Your task to perform on an android device: Open Google Chrome and open the bookmarks view Image 0: 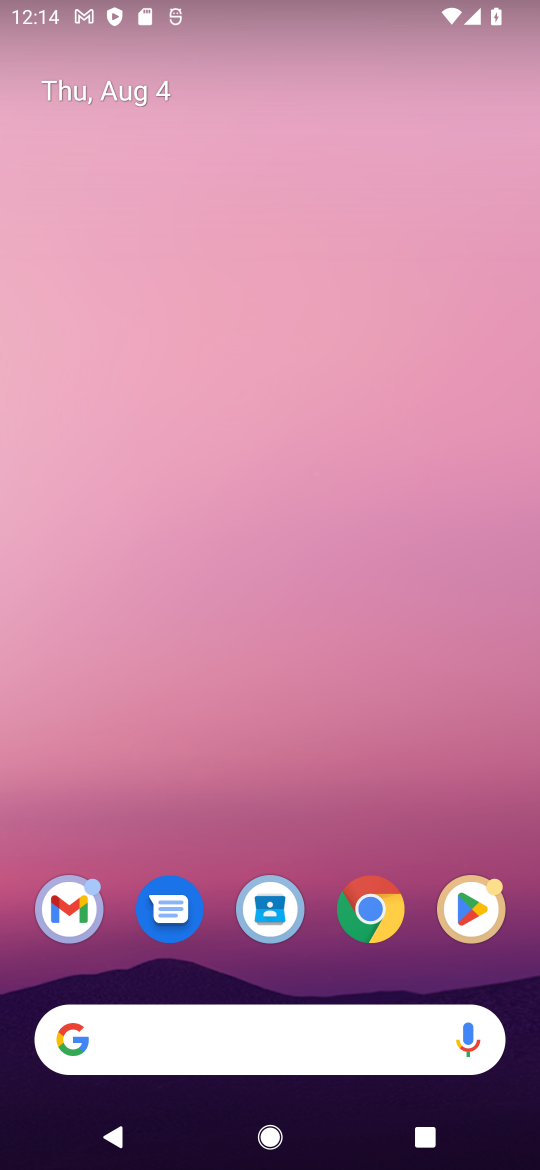
Step 0: click (396, 915)
Your task to perform on an android device: Open Google Chrome and open the bookmarks view Image 1: 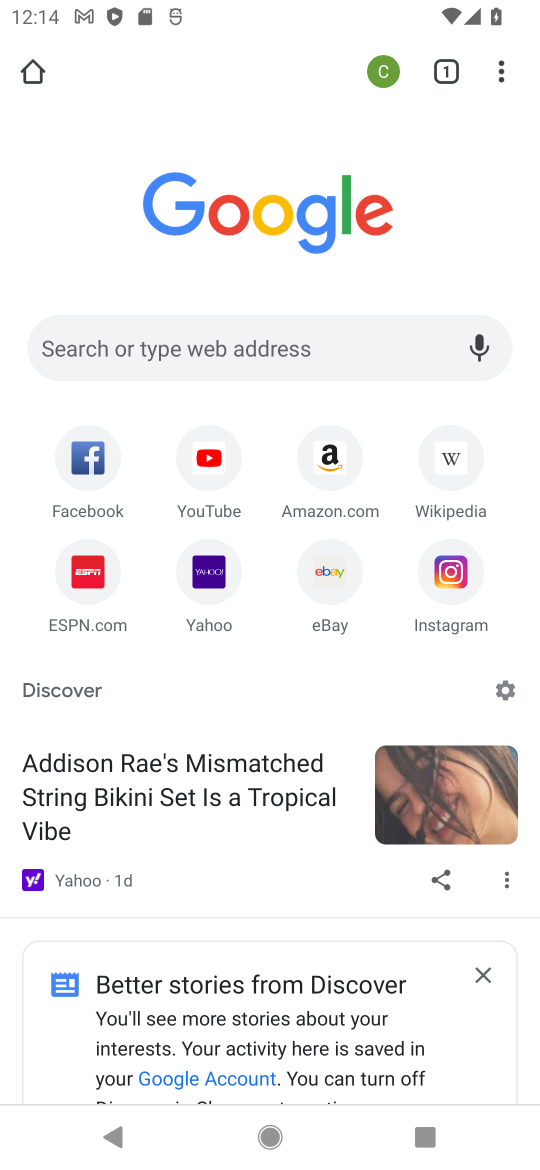
Step 1: click (510, 62)
Your task to perform on an android device: Open Google Chrome and open the bookmarks view Image 2: 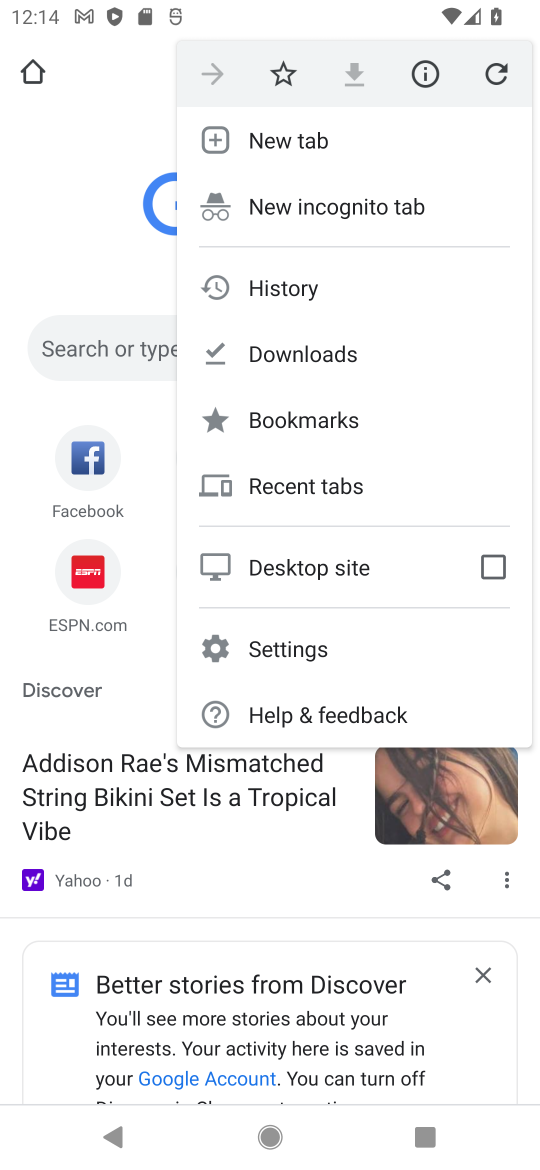
Step 2: click (340, 434)
Your task to perform on an android device: Open Google Chrome and open the bookmarks view Image 3: 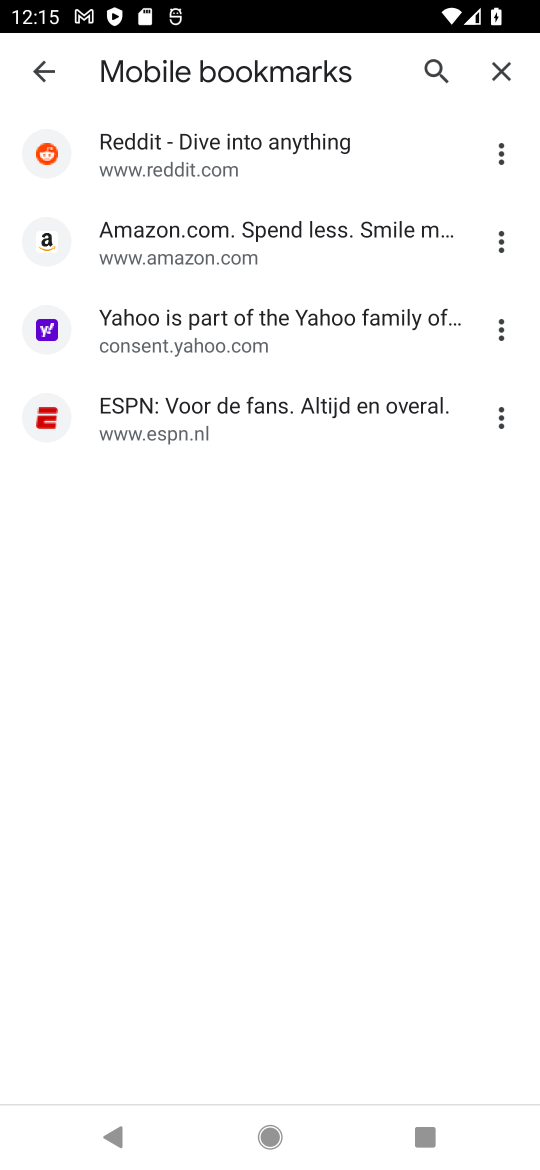
Step 3: task complete